Your task to perform on an android device: Is it going to rain today? Image 0: 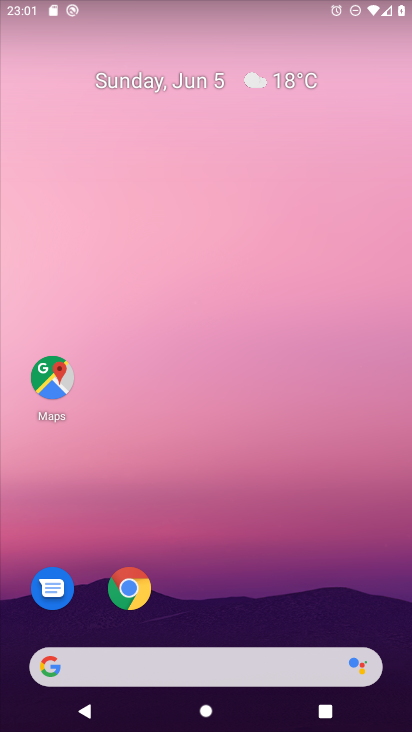
Step 0: click (264, 76)
Your task to perform on an android device: Is it going to rain today? Image 1: 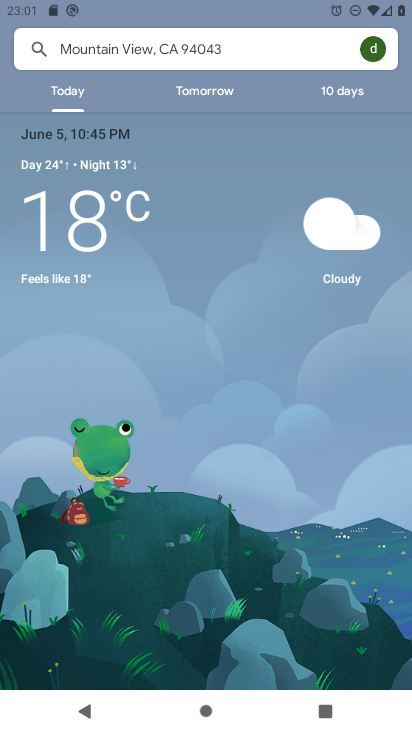
Step 1: task complete